Your task to perform on an android device: change alarm snooze length Image 0: 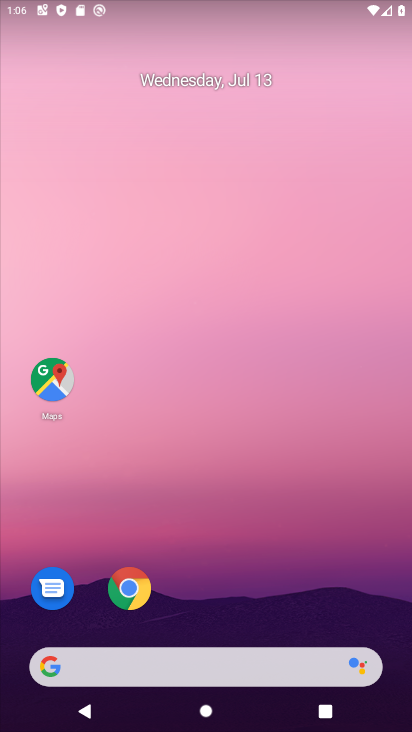
Step 0: drag from (264, 637) to (254, 104)
Your task to perform on an android device: change alarm snooze length Image 1: 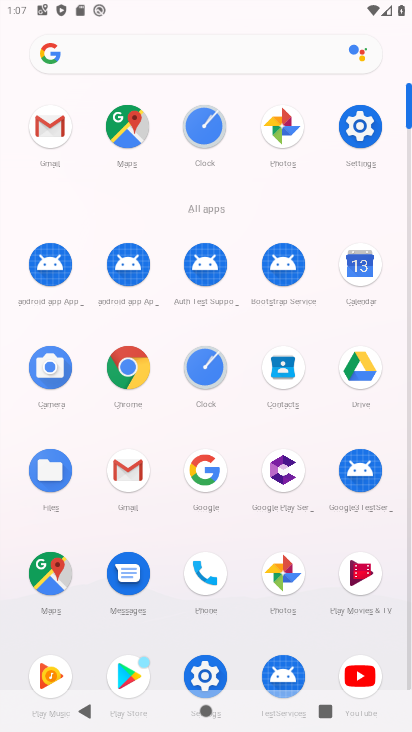
Step 1: click (365, 132)
Your task to perform on an android device: change alarm snooze length Image 2: 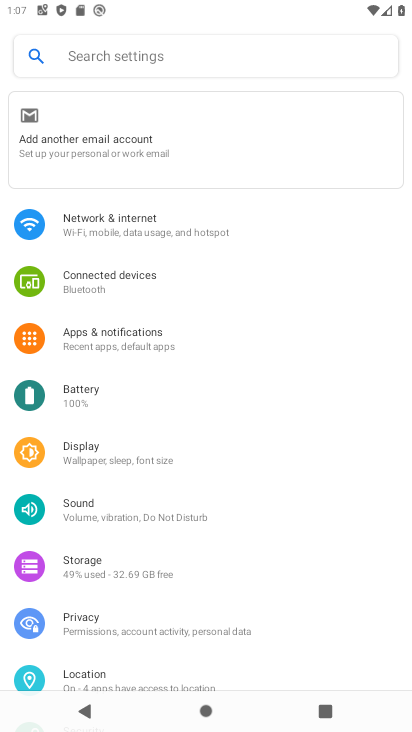
Step 2: press back button
Your task to perform on an android device: change alarm snooze length Image 3: 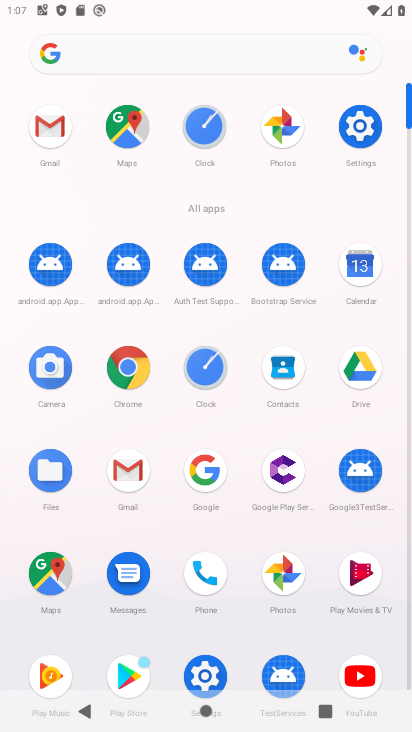
Step 3: click (204, 373)
Your task to perform on an android device: change alarm snooze length Image 4: 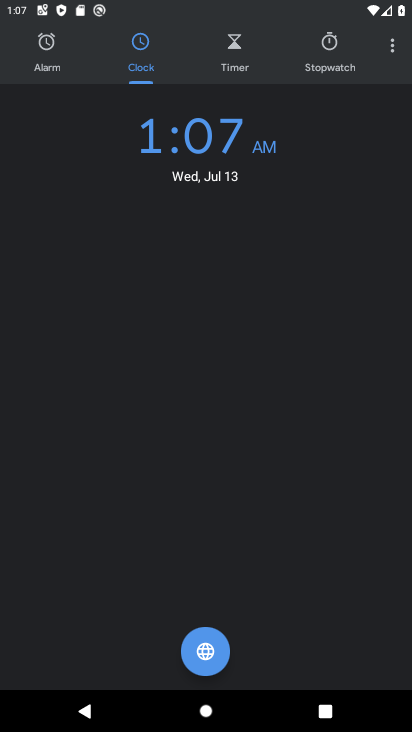
Step 4: click (390, 50)
Your task to perform on an android device: change alarm snooze length Image 5: 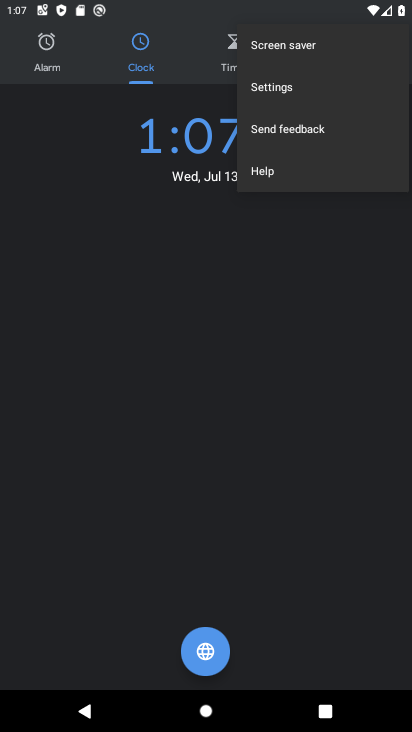
Step 5: click (293, 87)
Your task to perform on an android device: change alarm snooze length Image 6: 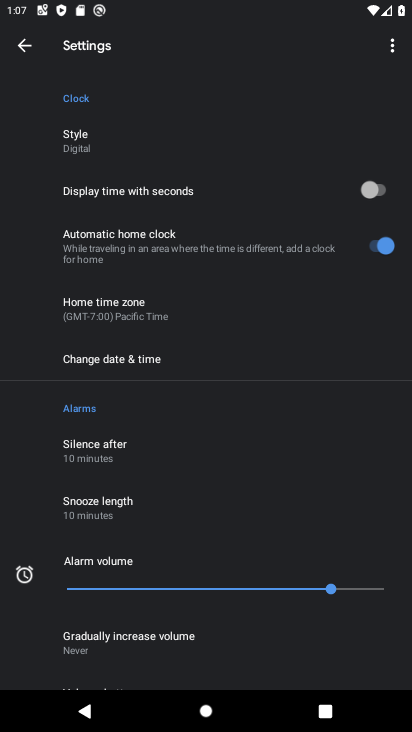
Step 6: click (101, 509)
Your task to perform on an android device: change alarm snooze length Image 7: 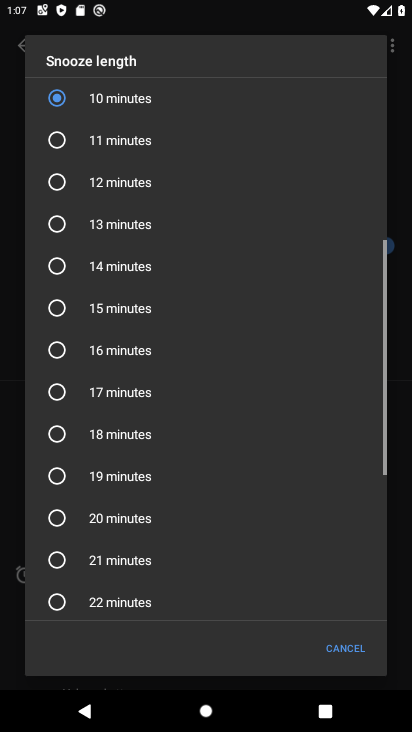
Step 7: click (113, 438)
Your task to perform on an android device: change alarm snooze length Image 8: 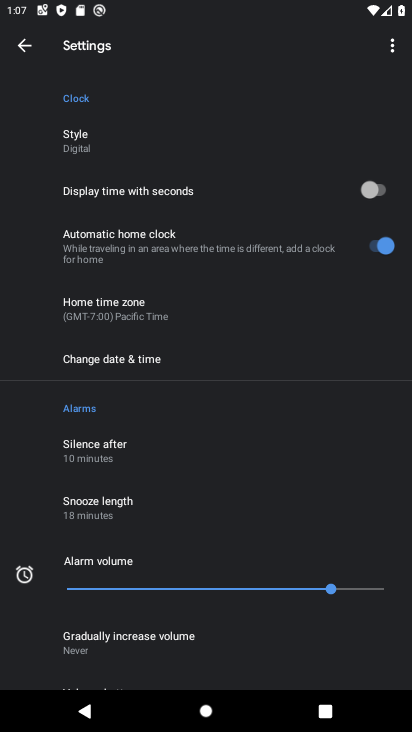
Step 8: task complete